Your task to perform on an android device: open the mobile data screen to see how much data has been used Image 0: 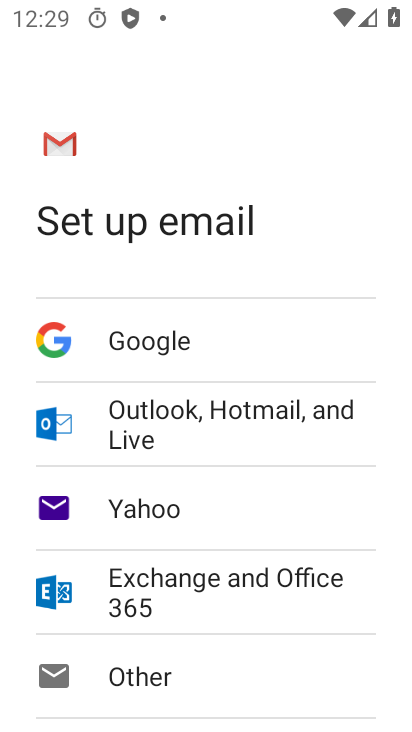
Step 0: press home button
Your task to perform on an android device: open the mobile data screen to see how much data has been used Image 1: 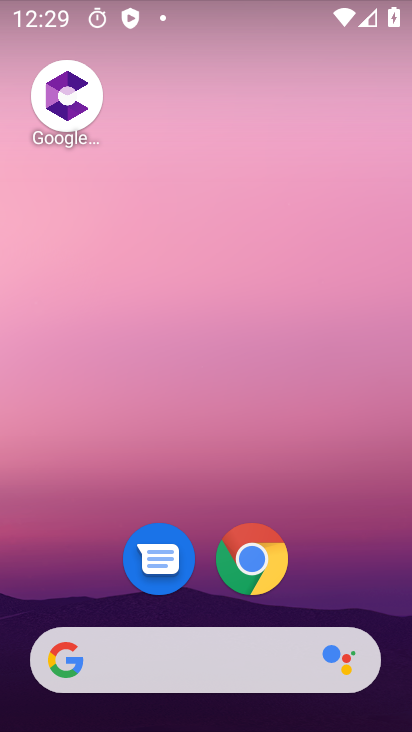
Step 1: drag from (306, 601) to (280, 43)
Your task to perform on an android device: open the mobile data screen to see how much data has been used Image 2: 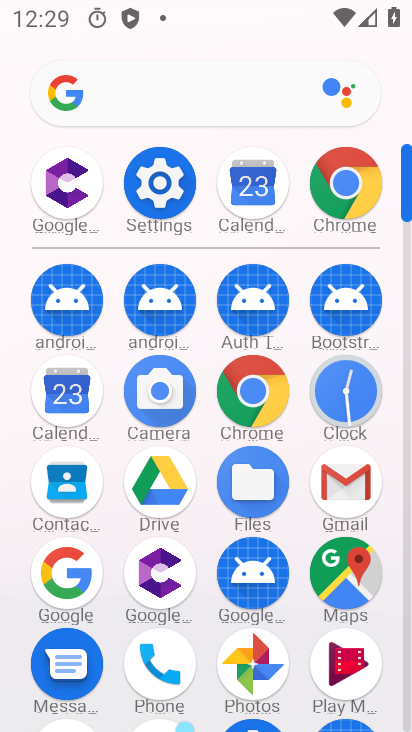
Step 2: click (177, 188)
Your task to perform on an android device: open the mobile data screen to see how much data has been used Image 3: 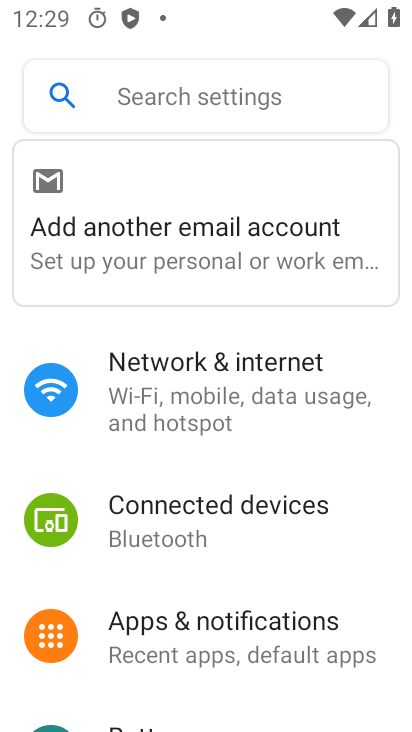
Step 3: click (245, 383)
Your task to perform on an android device: open the mobile data screen to see how much data has been used Image 4: 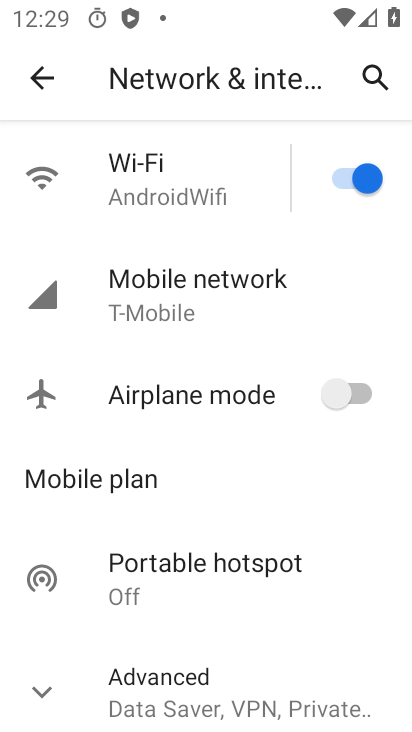
Step 4: click (183, 290)
Your task to perform on an android device: open the mobile data screen to see how much data has been used Image 5: 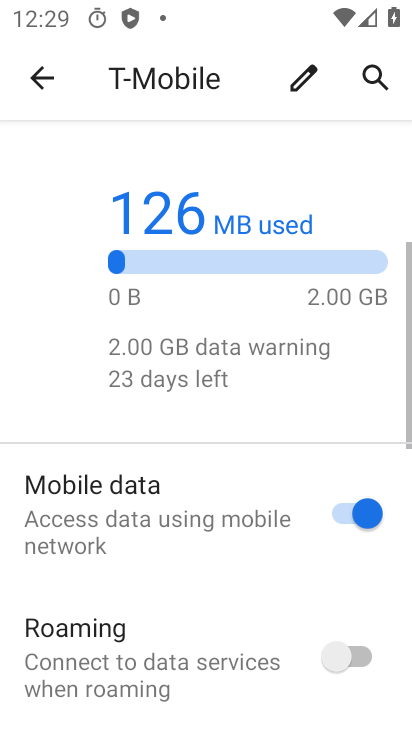
Step 5: task complete